Your task to perform on an android device: open app "Adobe Acrobat Reader: Edit PDF" (install if not already installed) Image 0: 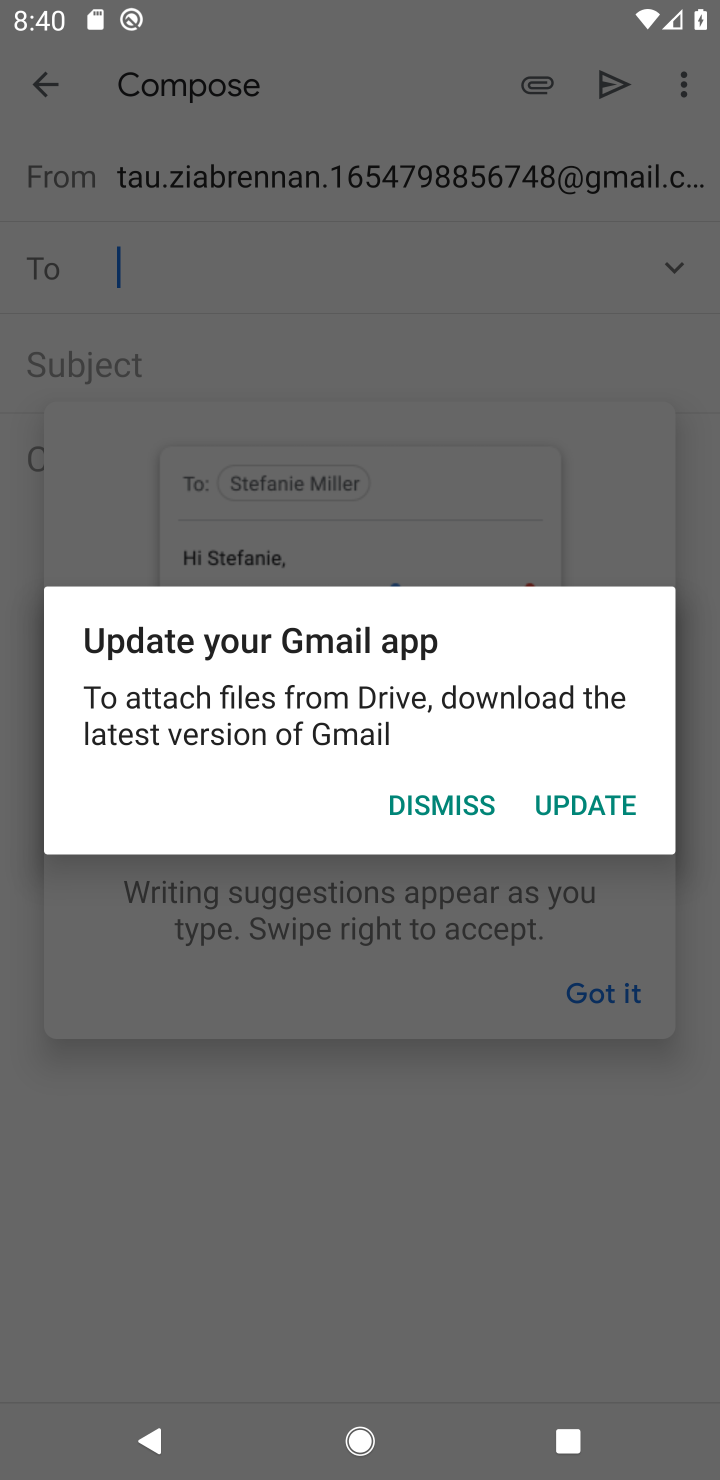
Step 0: click (434, 793)
Your task to perform on an android device: open app "Adobe Acrobat Reader: Edit PDF" (install if not already installed) Image 1: 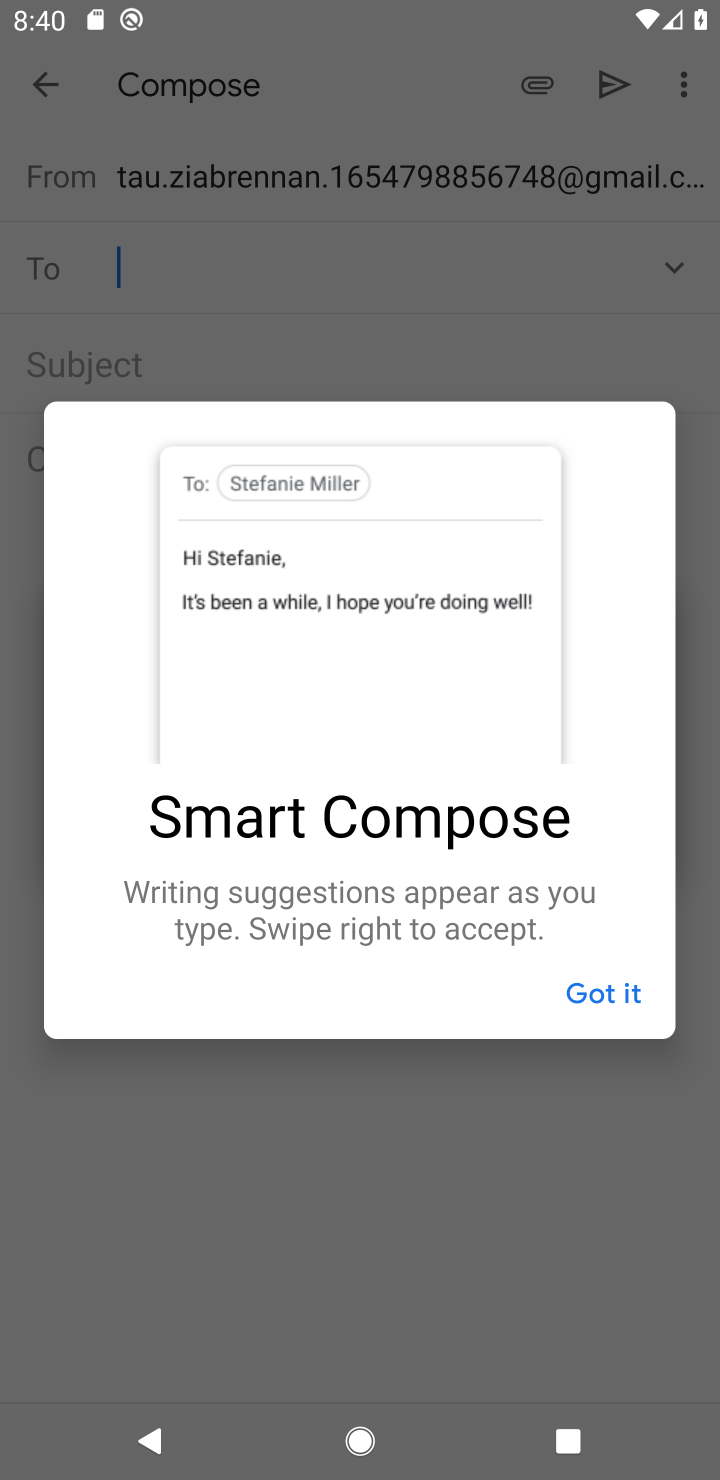
Step 1: click (609, 991)
Your task to perform on an android device: open app "Adobe Acrobat Reader: Edit PDF" (install if not already installed) Image 2: 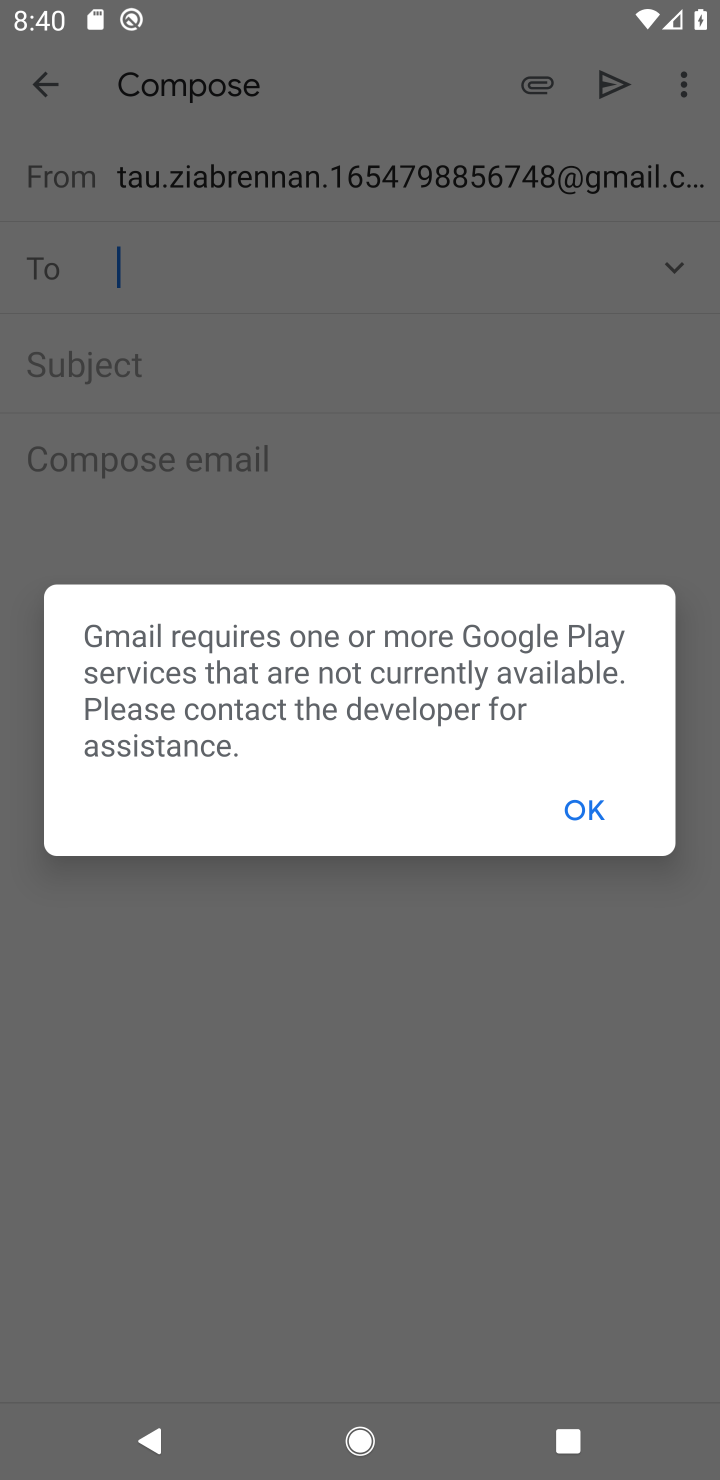
Step 2: click (573, 777)
Your task to perform on an android device: open app "Adobe Acrobat Reader: Edit PDF" (install if not already installed) Image 3: 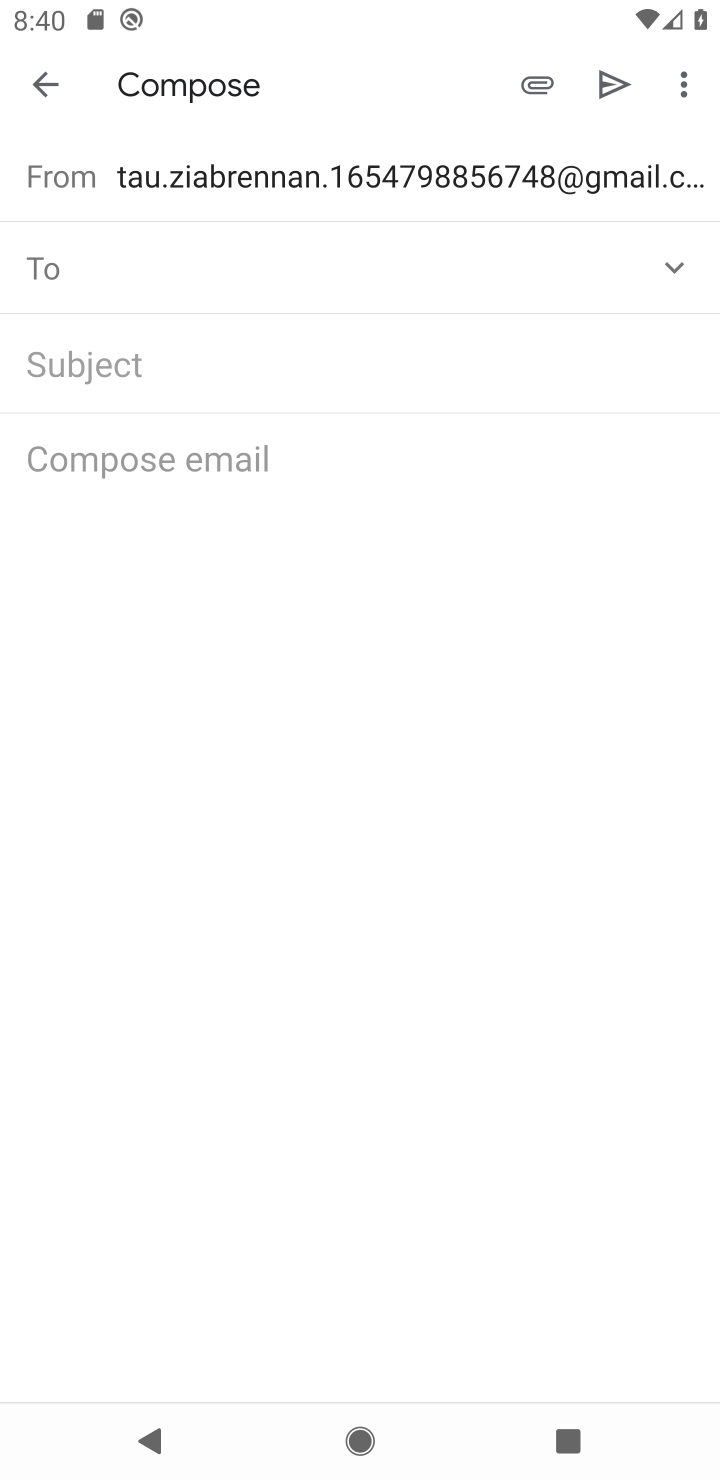
Step 3: press back button
Your task to perform on an android device: open app "Adobe Acrobat Reader: Edit PDF" (install if not already installed) Image 4: 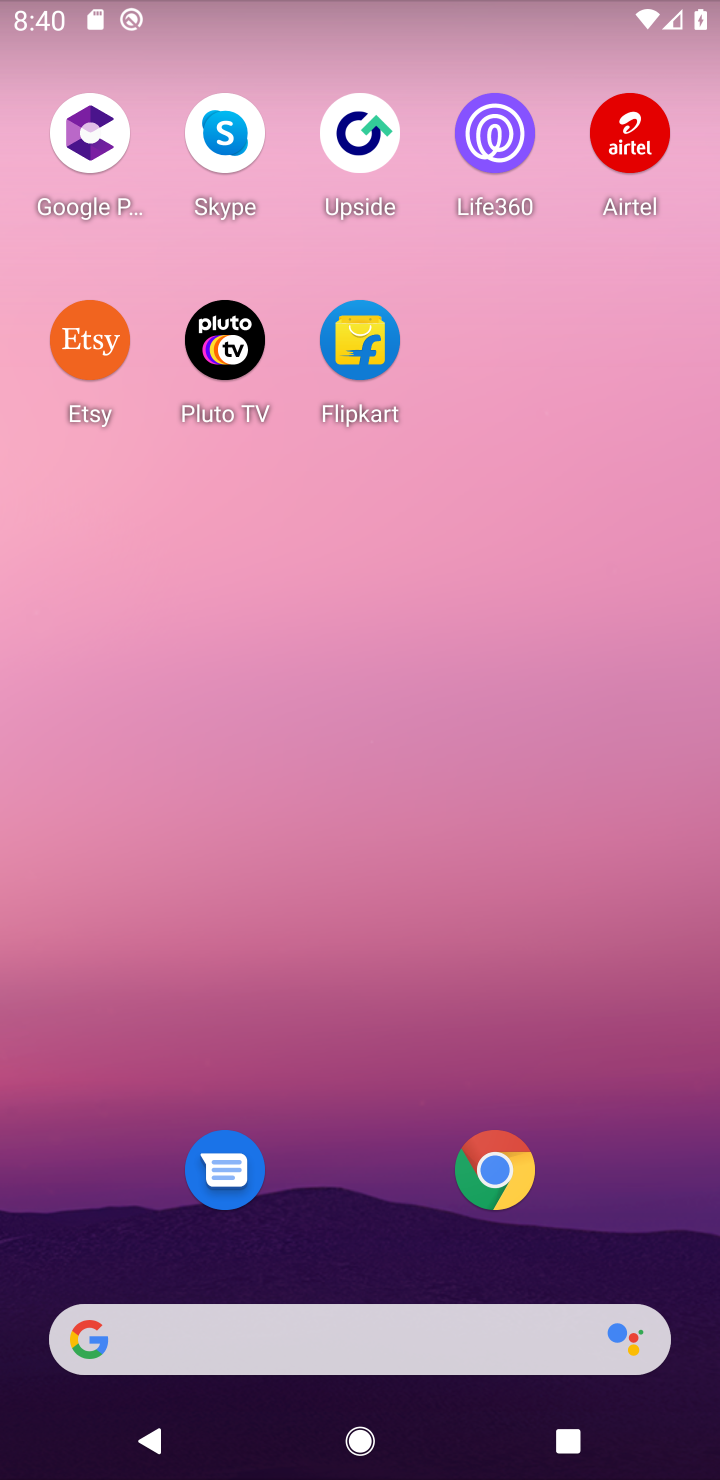
Step 4: drag from (269, 1152) to (488, 161)
Your task to perform on an android device: open app "Adobe Acrobat Reader: Edit PDF" (install if not already installed) Image 5: 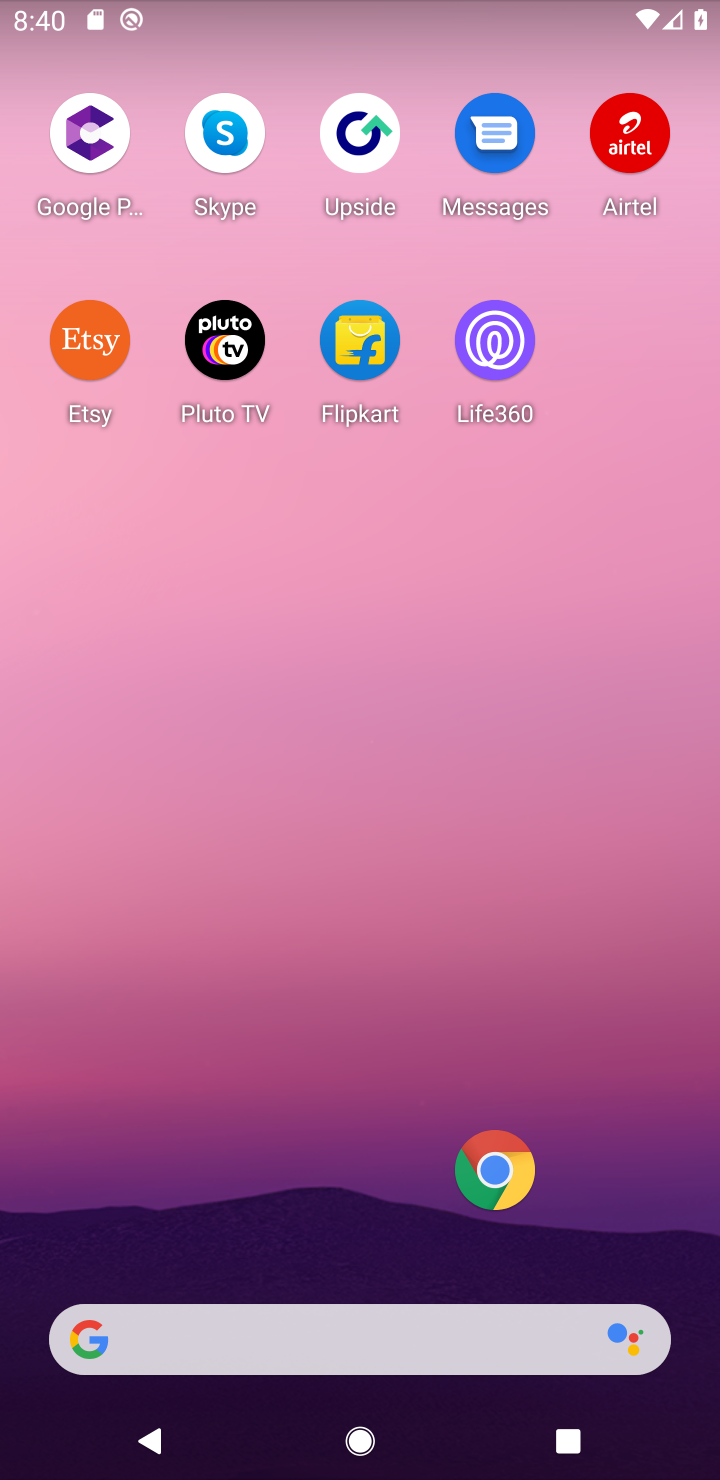
Step 5: drag from (309, 755) to (393, 166)
Your task to perform on an android device: open app "Adobe Acrobat Reader: Edit PDF" (install if not already installed) Image 6: 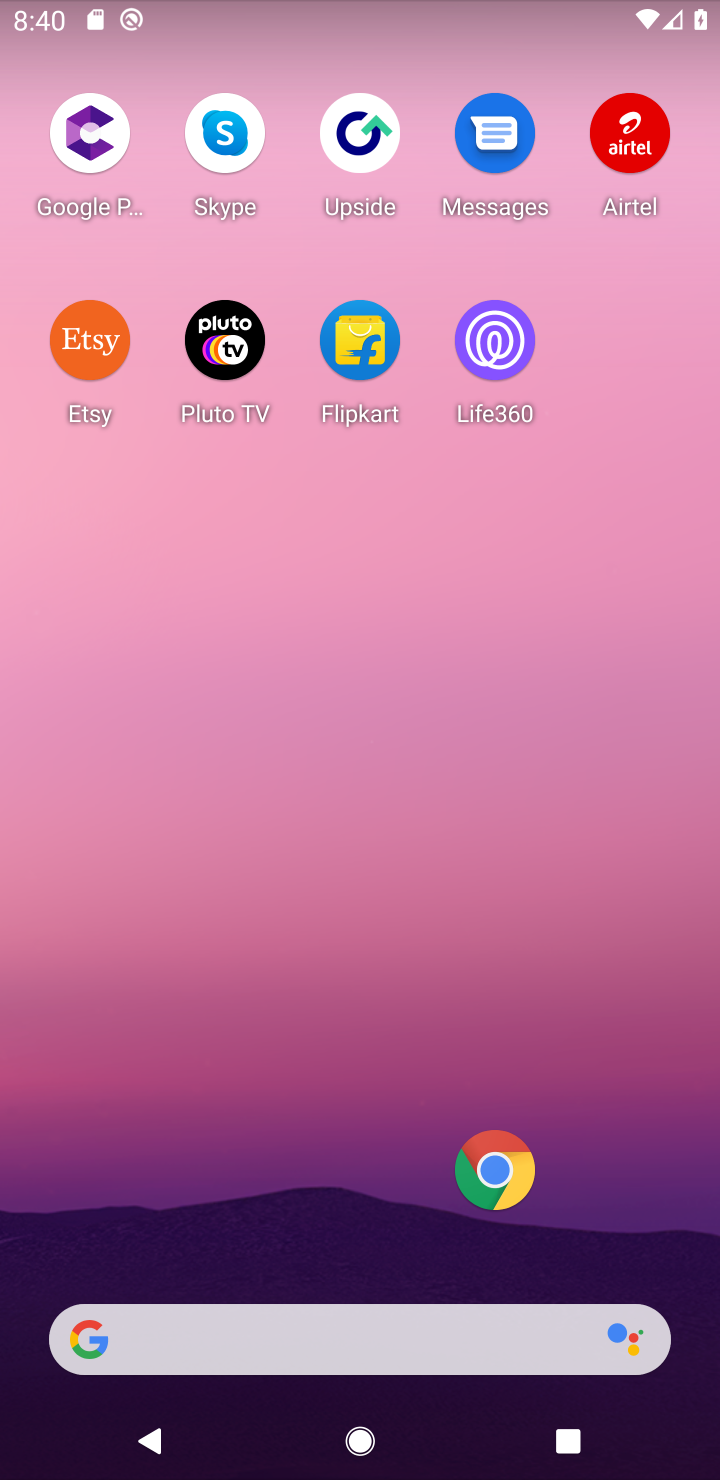
Step 6: drag from (312, 1066) to (457, 225)
Your task to perform on an android device: open app "Adobe Acrobat Reader: Edit PDF" (install if not already installed) Image 7: 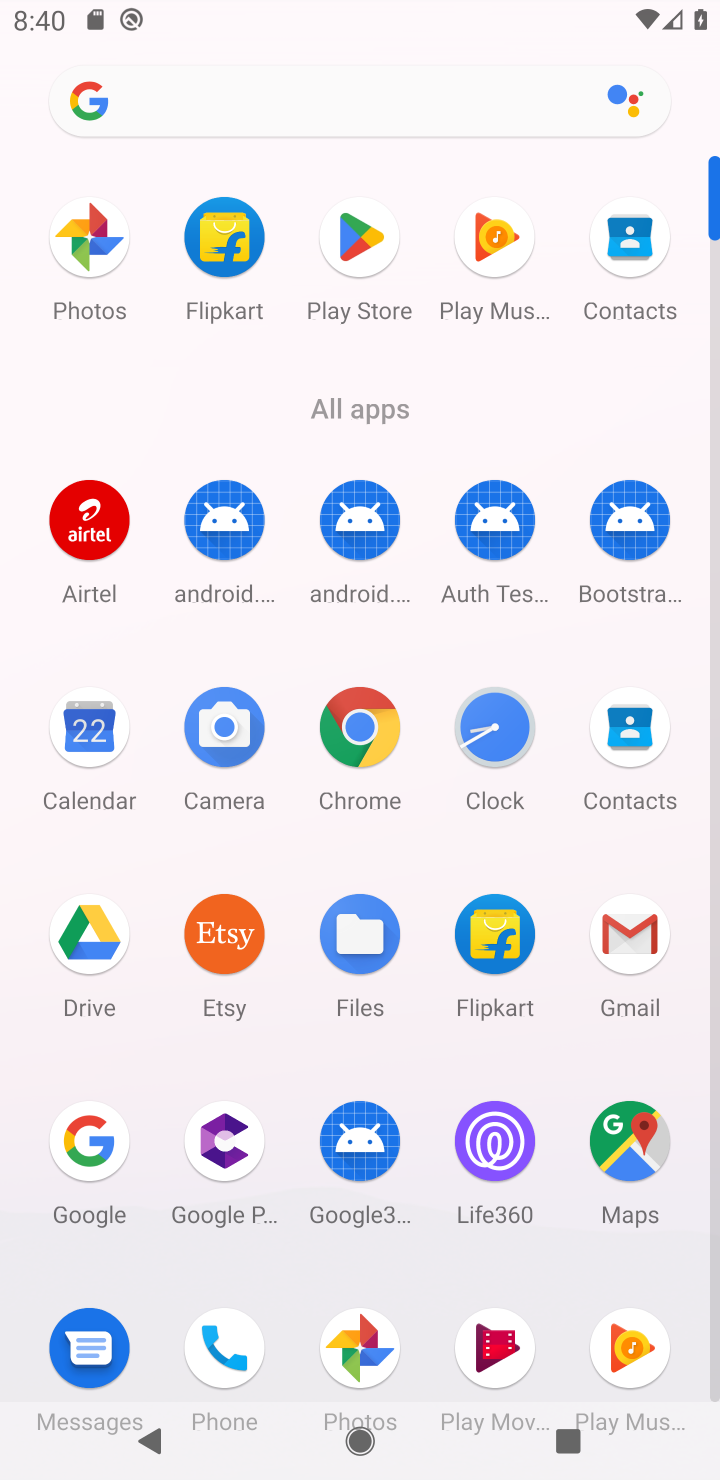
Step 7: click (358, 238)
Your task to perform on an android device: open app "Adobe Acrobat Reader: Edit PDF" (install if not already installed) Image 8: 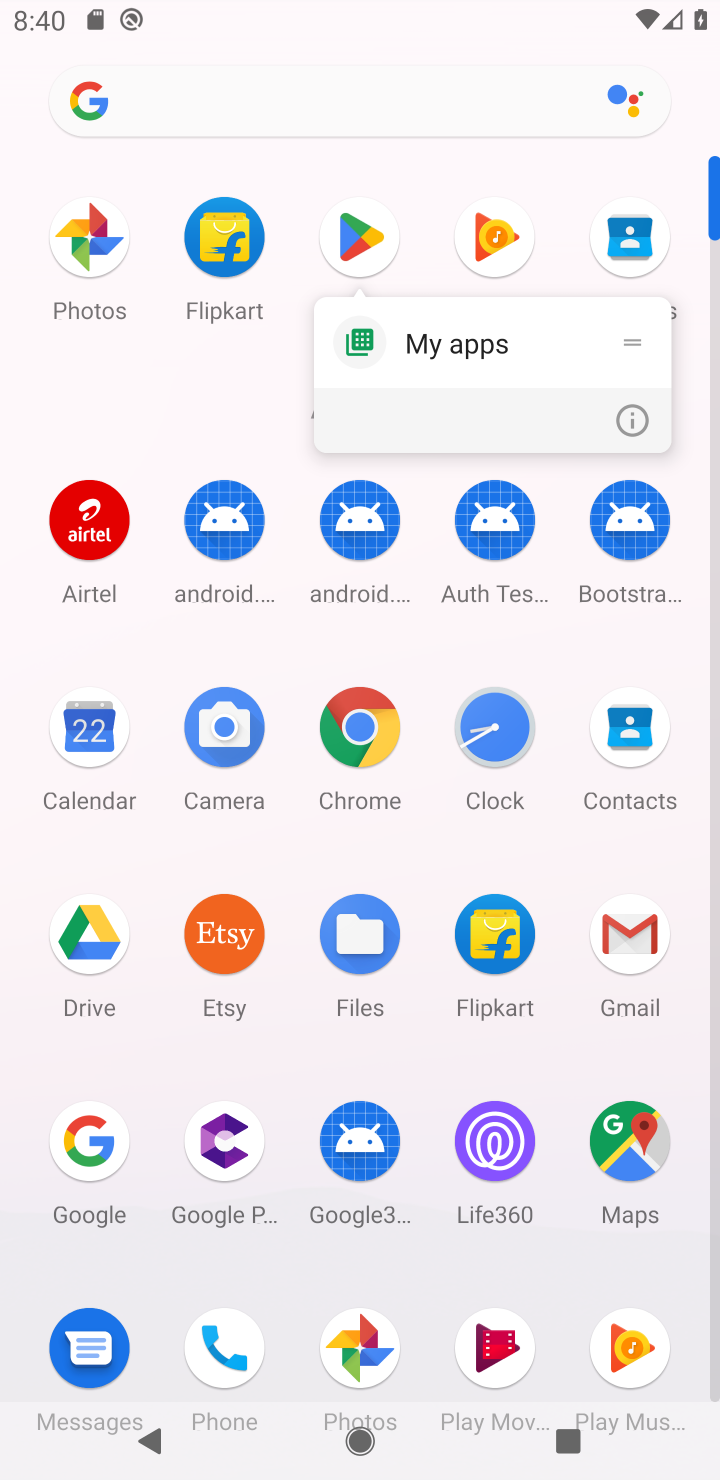
Step 8: click (364, 236)
Your task to perform on an android device: open app "Adobe Acrobat Reader: Edit PDF" (install if not already installed) Image 9: 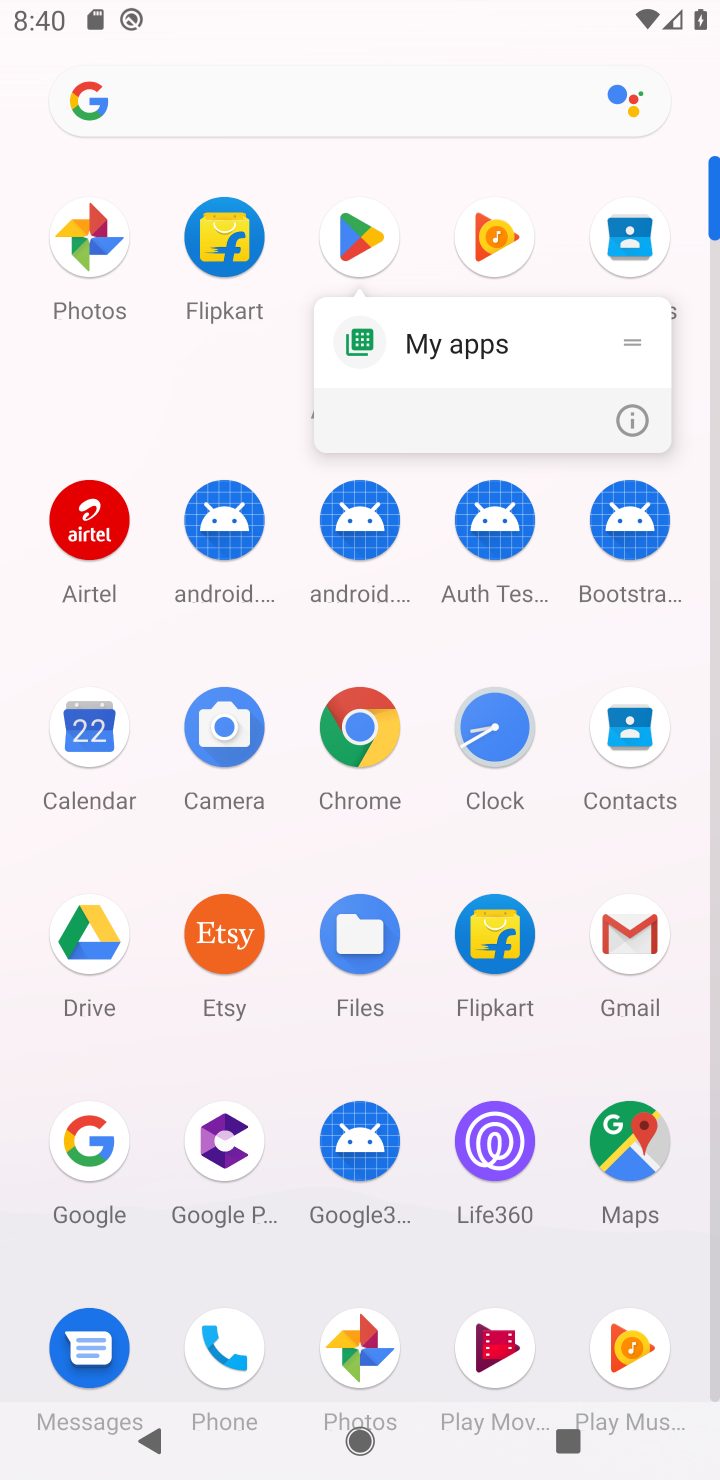
Step 9: click (346, 247)
Your task to perform on an android device: open app "Adobe Acrobat Reader: Edit PDF" (install if not already installed) Image 10: 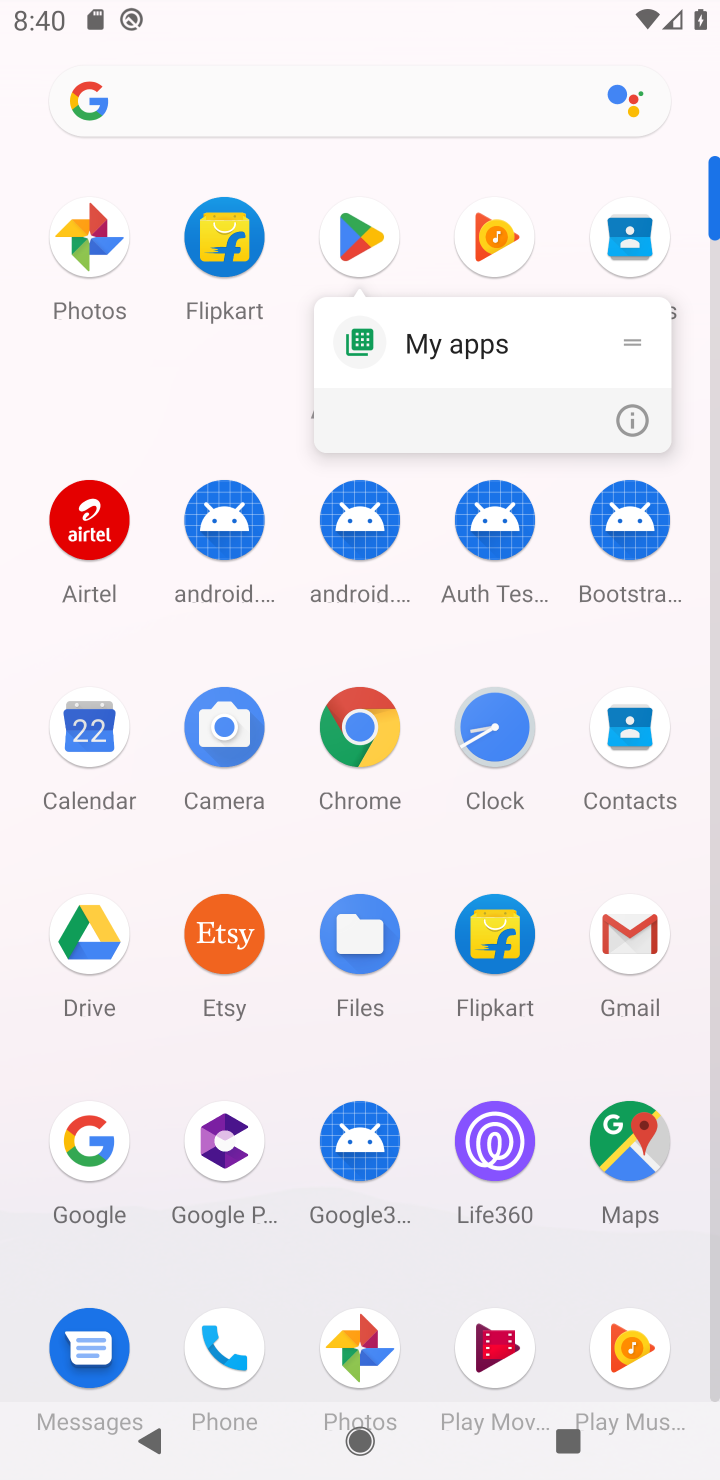
Step 10: click (360, 243)
Your task to perform on an android device: open app "Adobe Acrobat Reader: Edit PDF" (install if not already installed) Image 11: 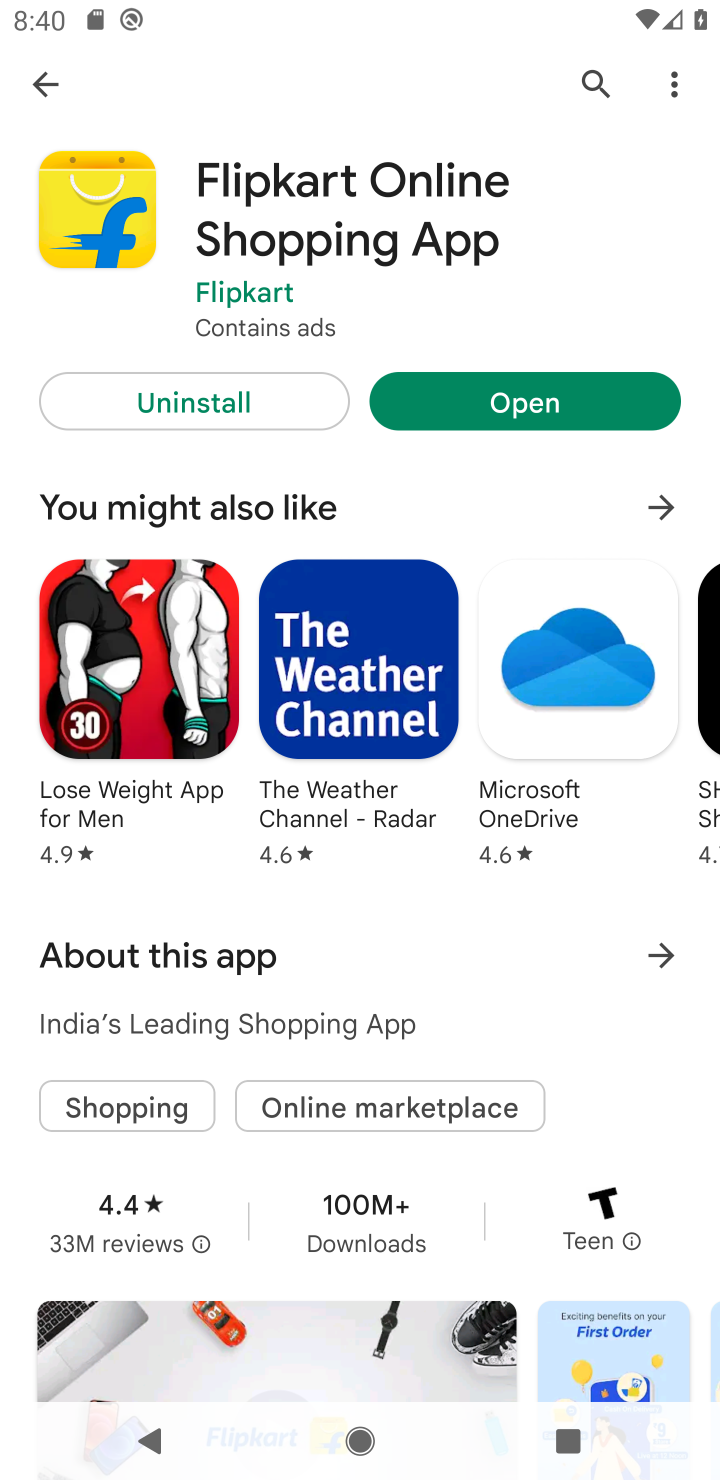
Step 11: click (599, 88)
Your task to perform on an android device: open app "Adobe Acrobat Reader: Edit PDF" (install if not already installed) Image 12: 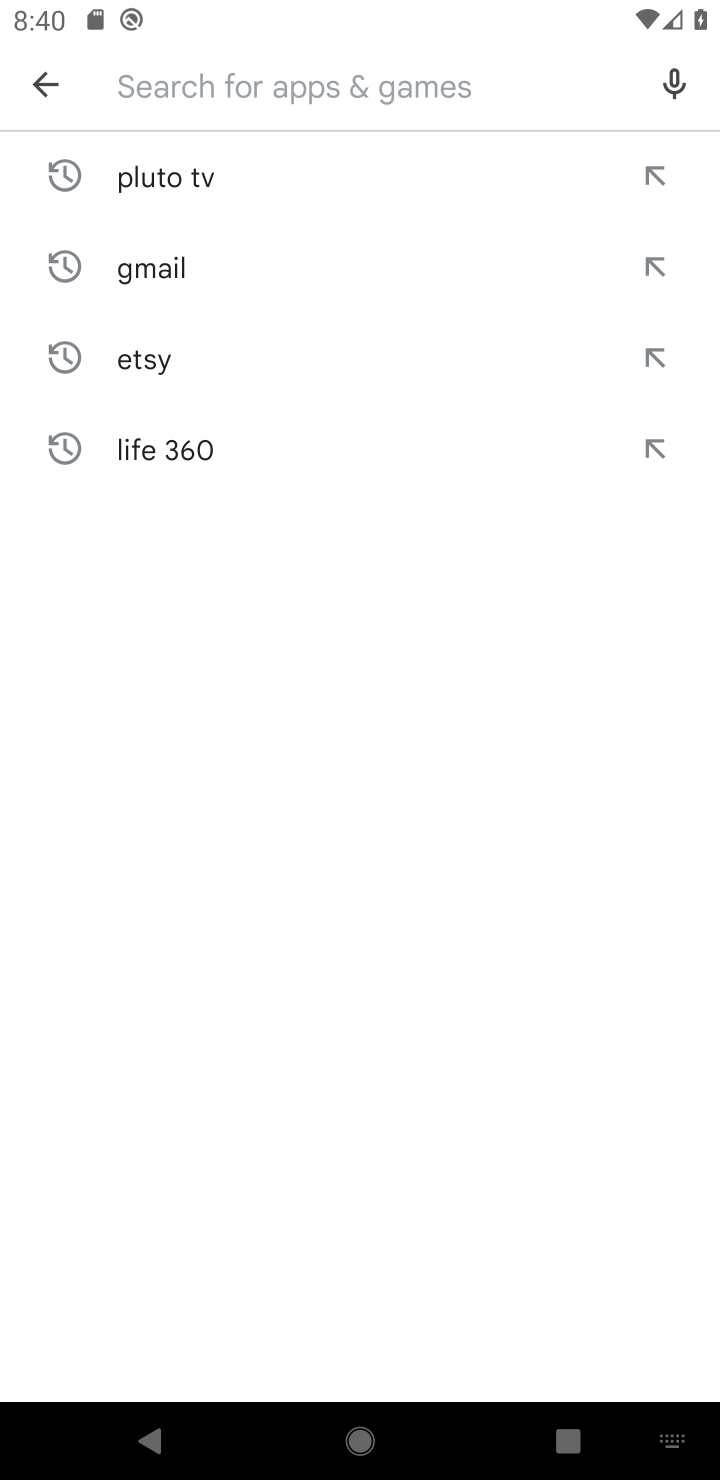
Step 12: click (198, 77)
Your task to perform on an android device: open app "Adobe Acrobat Reader: Edit PDF" (install if not already installed) Image 13: 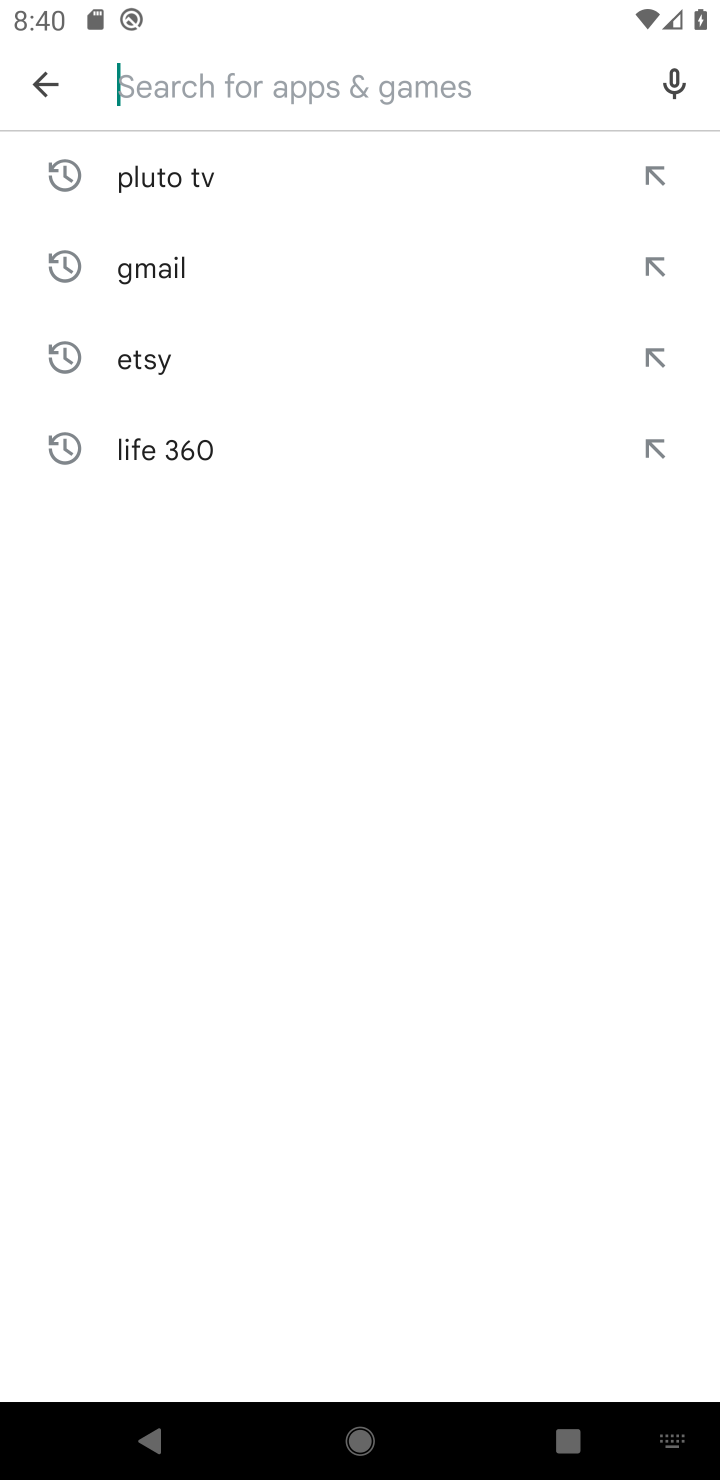
Step 13: type "Adobe Acrobat Reader"
Your task to perform on an android device: open app "Adobe Acrobat Reader: Edit PDF" (install if not already installed) Image 14: 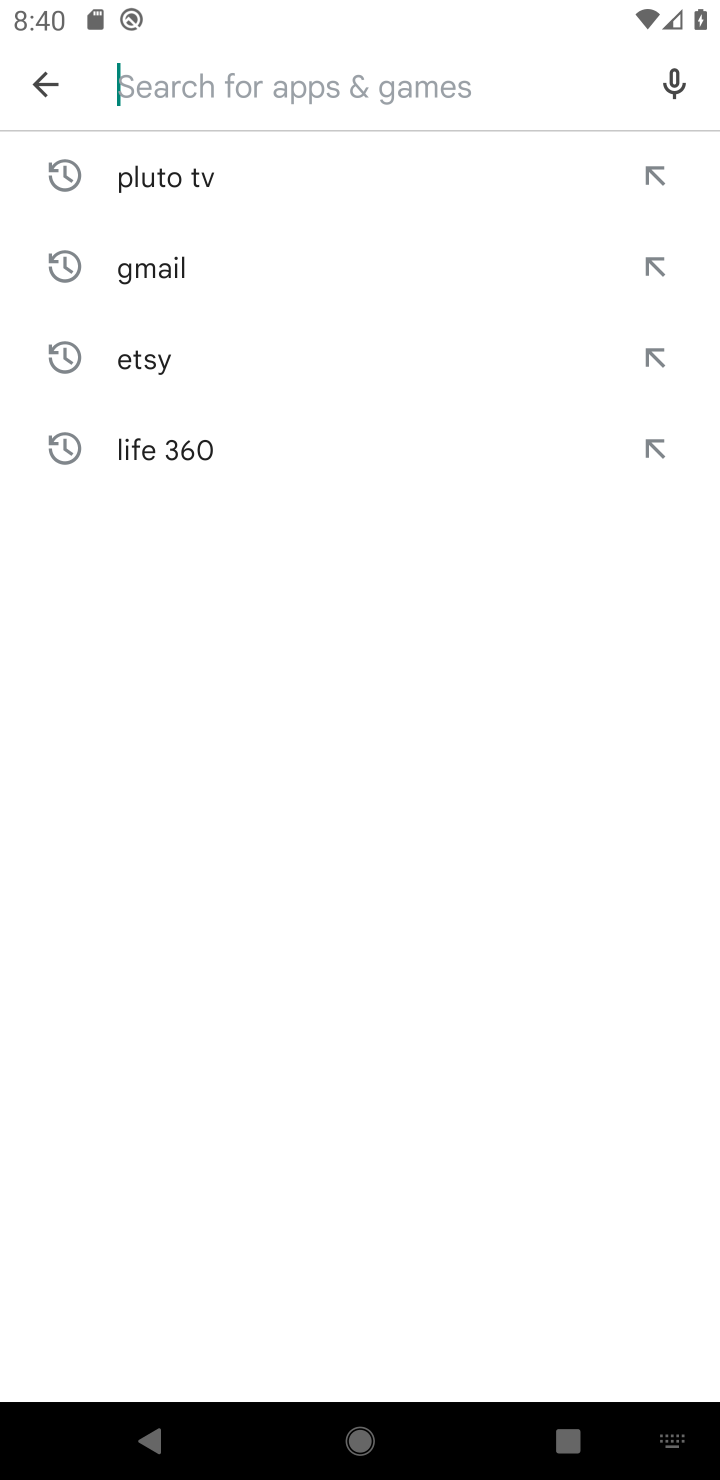
Step 14: click (421, 942)
Your task to perform on an android device: open app "Adobe Acrobat Reader: Edit PDF" (install if not already installed) Image 15: 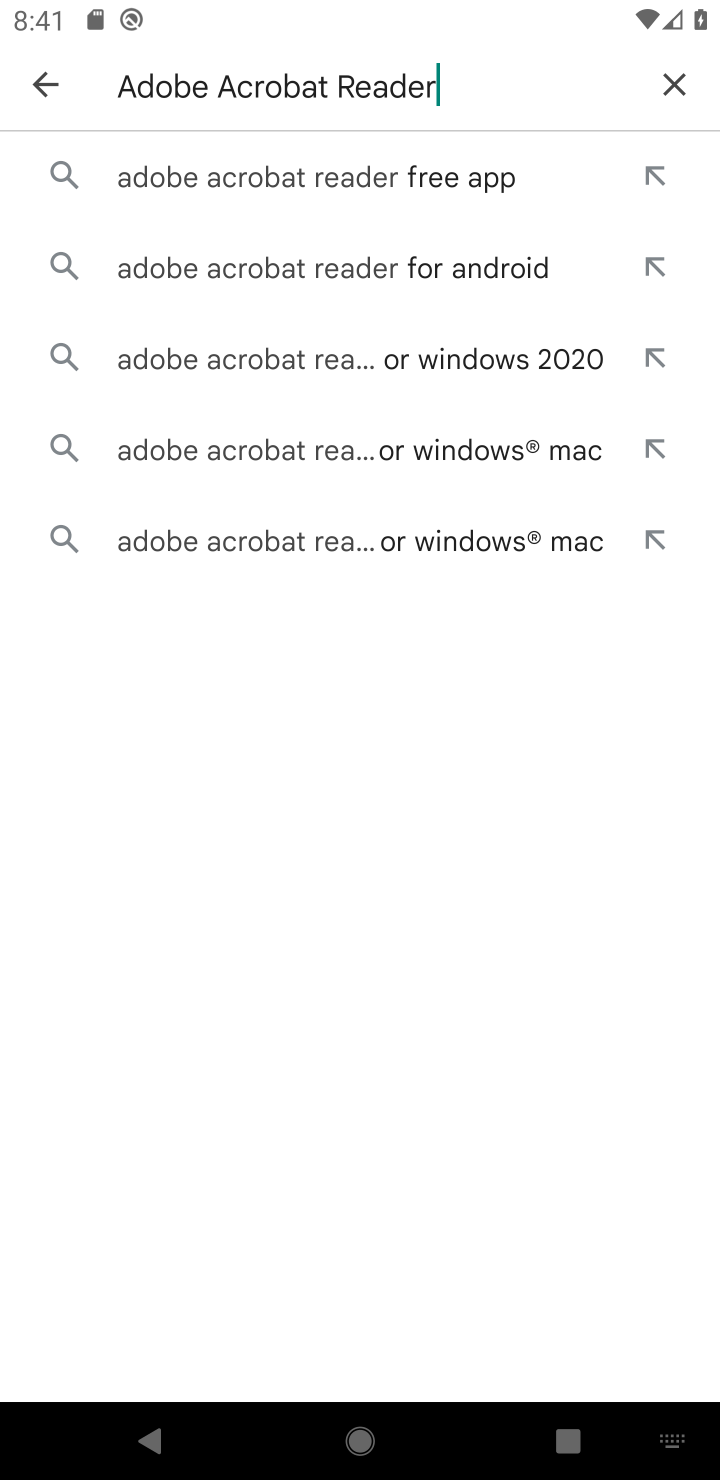
Step 15: click (243, 141)
Your task to perform on an android device: open app "Adobe Acrobat Reader: Edit PDF" (install if not already installed) Image 16: 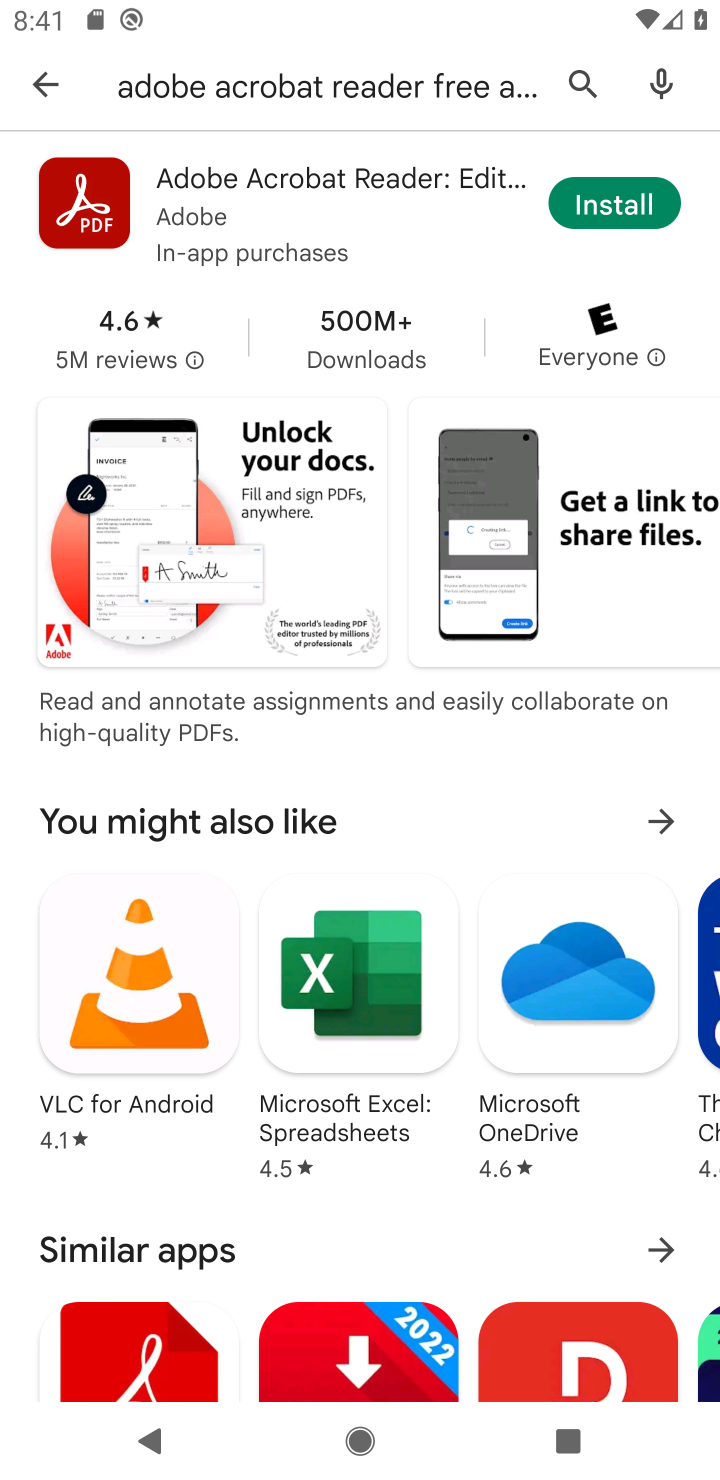
Step 16: click (610, 197)
Your task to perform on an android device: open app "Adobe Acrobat Reader: Edit PDF" (install if not already installed) Image 17: 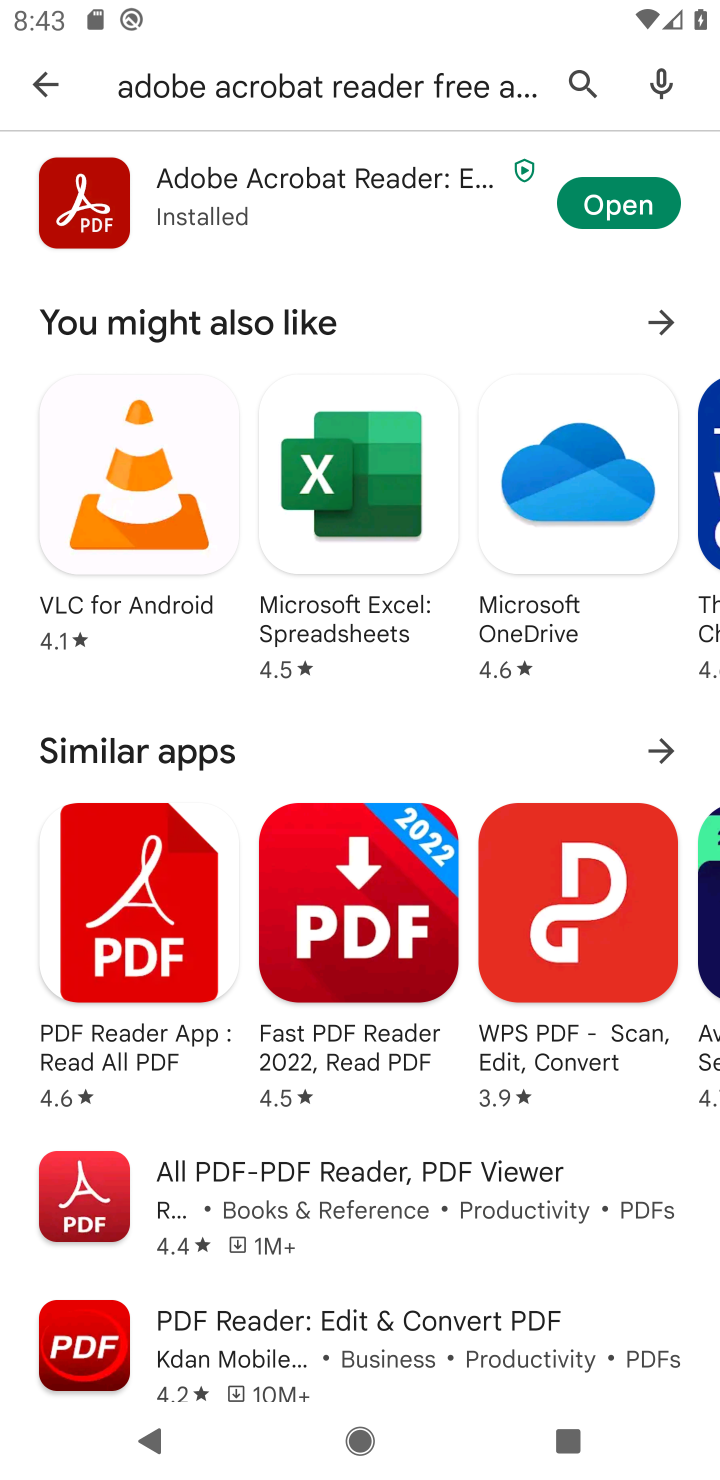
Step 17: click (630, 188)
Your task to perform on an android device: open app "Adobe Acrobat Reader: Edit PDF" (install if not already installed) Image 18: 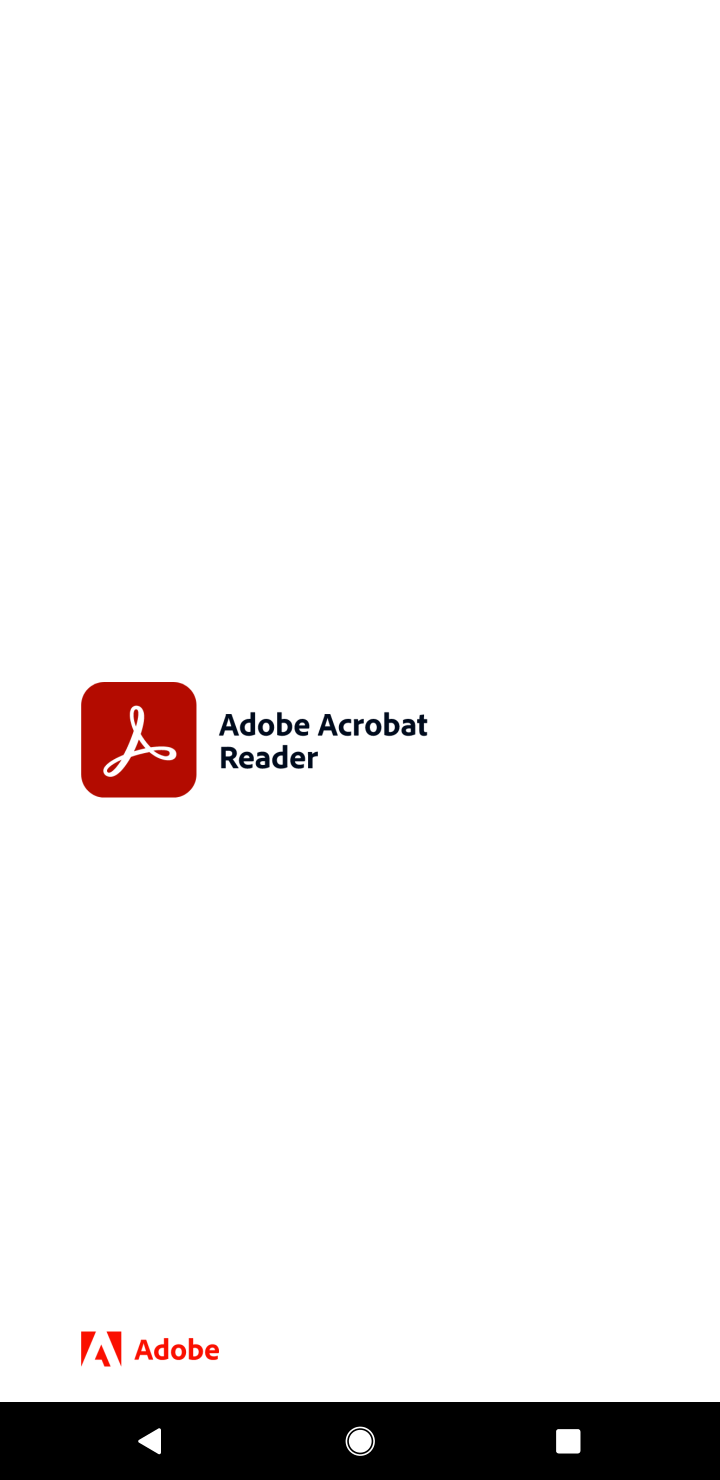
Step 18: task complete